Your task to perform on an android device: add a contact in the contacts app Image 0: 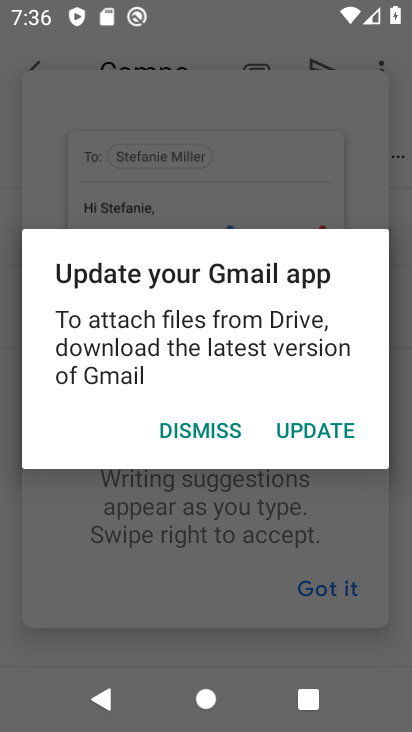
Step 0: press home button
Your task to perform on an android device: add a contact in the contacts app Image 1: 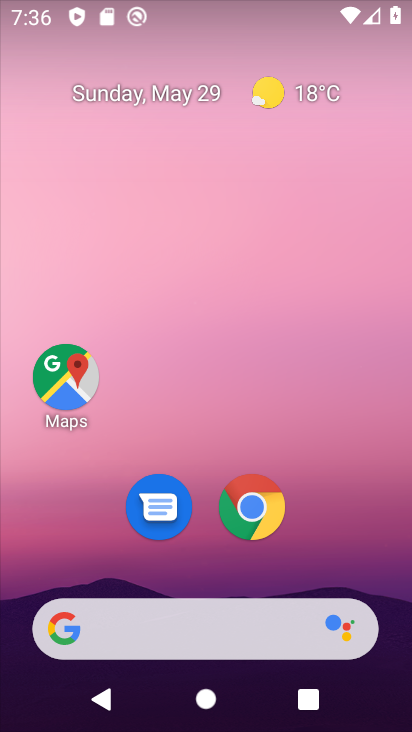
Step 1: drag from (350, 591) to (314, 147)
Your task to perform on an android device: add a contact in the contacts app Image 2: 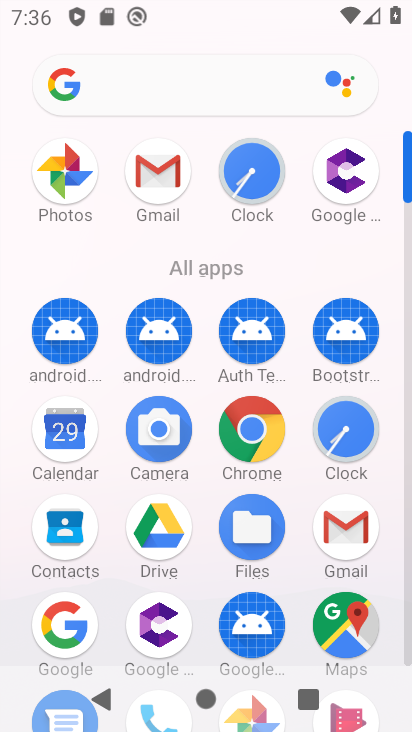
Step 2: click (71, 535)
Your task to perform on an android device: add a contact in the contacts app Image 3: 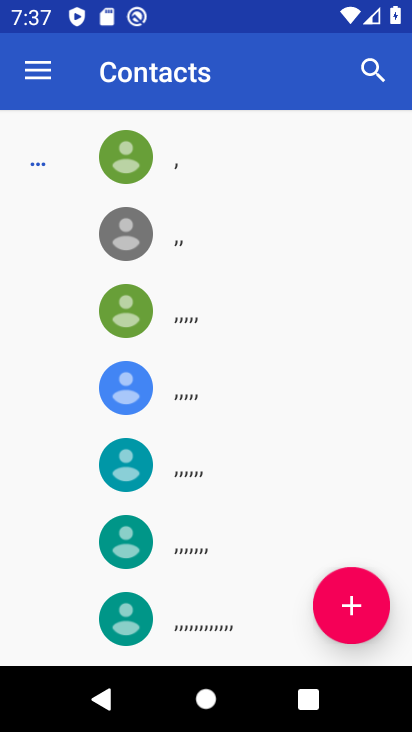
Step 3: click (344, 606)
Your task to perform on an android device: add a contact in the contacts app Image 4: 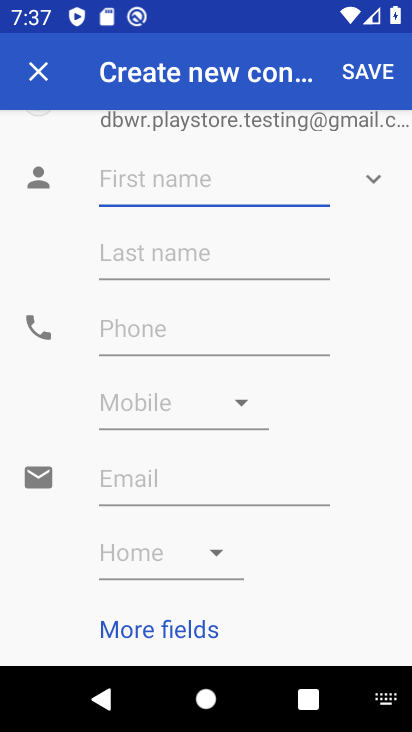
Step 4: type "gfd"
Your task to perform on an android device: add a contact in the contacts app Image 5: 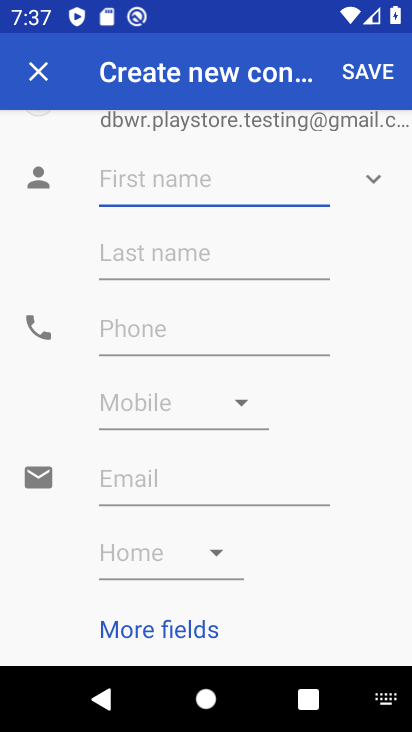
Step 5: click (133, 416)
Your task to perform on an android device: add a contact in the contacts app Image 6: 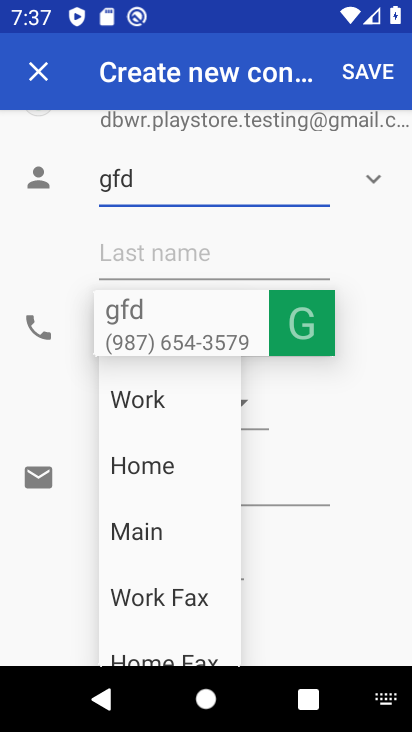
Step 6: drag from (162, 312) to (189, 235)
Your task to perform on an android device: add a contact in the contacts app Image 7: 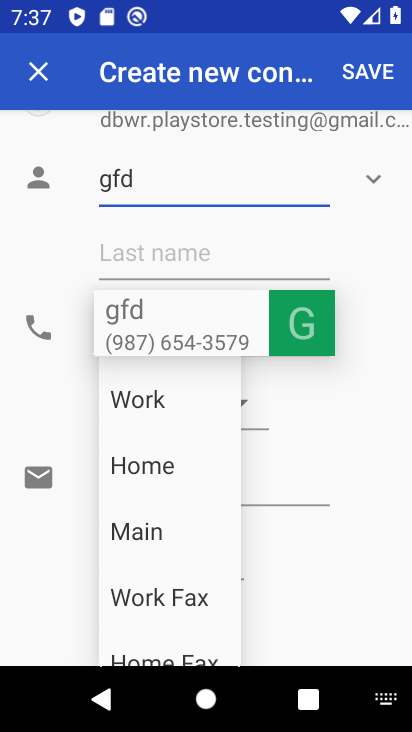
Step 7: click (165, 177)
Your task to perform on an android device: add a contact in the contacts app Image 8: 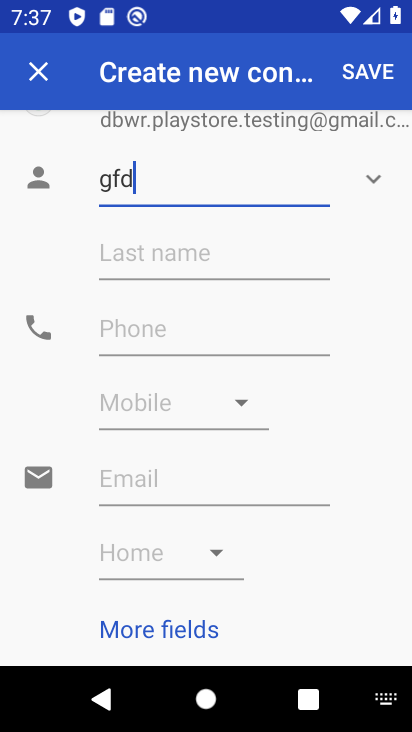
Step 8: type "dddd"
Your task to perform on an android device: add a contact in the contacts app Image 9: 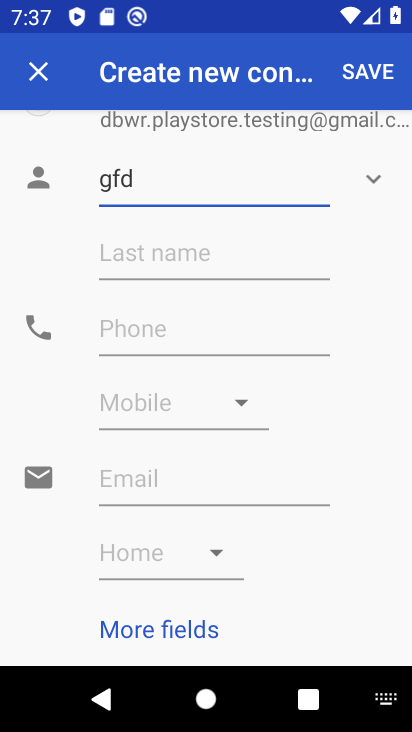
Step 9: click (205, 189)
Your task to perform on an android device: add a contact in the contacts app Image 10: 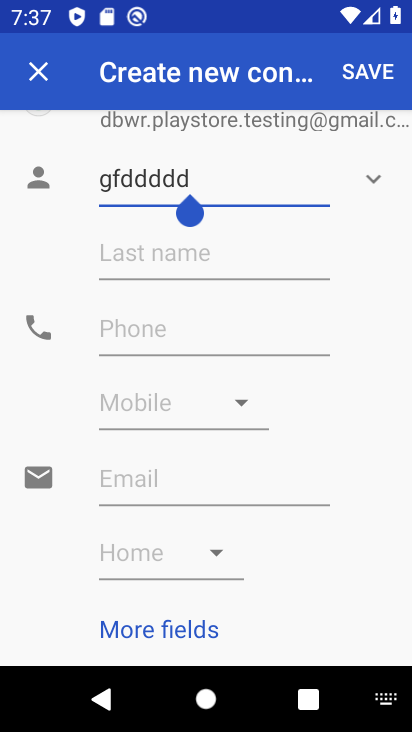
Step 10: click (194, 179)
Your task to perform on an android device: add a contact in the contacts app Image 11: 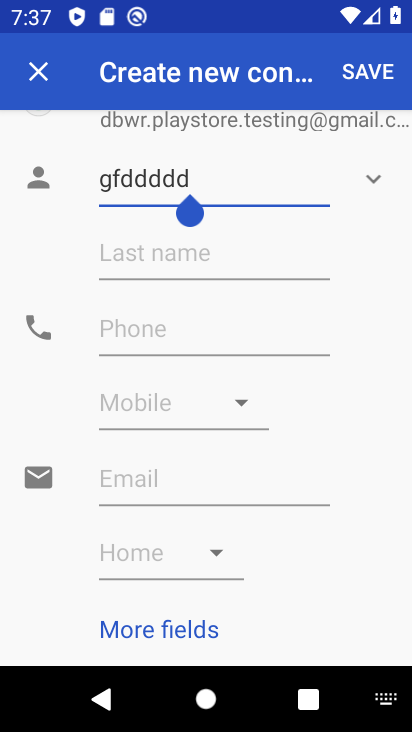
Step 11: click (131, 386)
Your task to perform on an android device: add a contact in the contacts app Image 12: 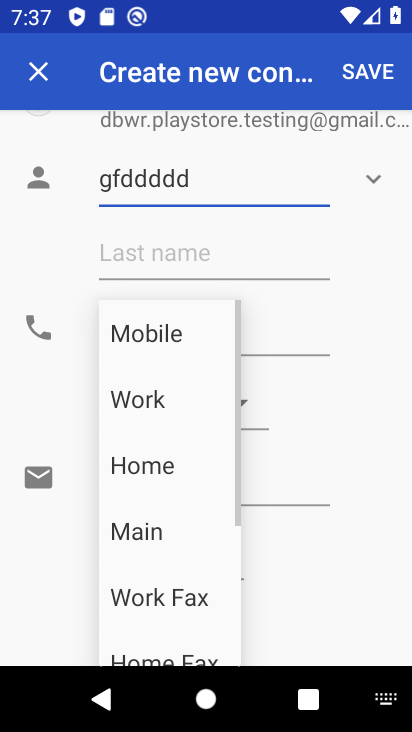
Step 12: click (164, 343)
Your task to perform on an android device: add a contact in the contacts app Image 13: 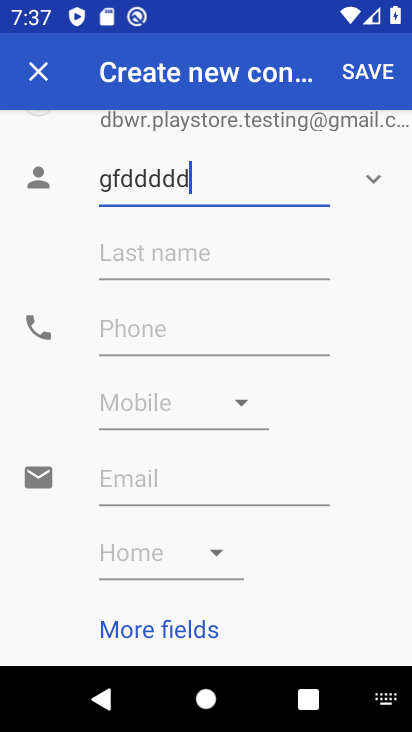
Step 13: click (175, 325)
Your task to perform on an android device: add a contact in the contacts app Image 14: 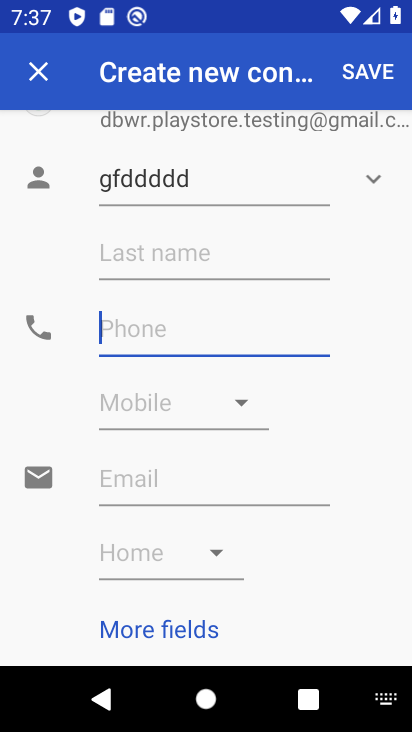
Step 14: type "23344111"
Your task to perform on an android device: add a contact in the contacts app Image 15: 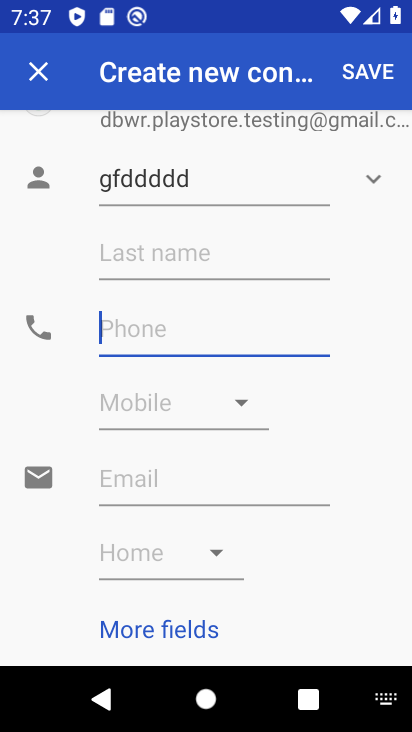
Step 15: click (184, 326)
Your task to perform on an android device: add a contact in the contacts app Image 16: 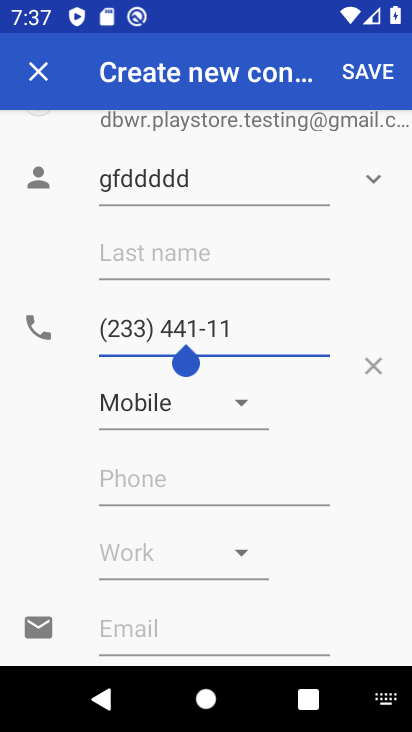
Step 16: click (364, 81)
Your task to perform on an android device: add a contact in the contacts app Image 17: 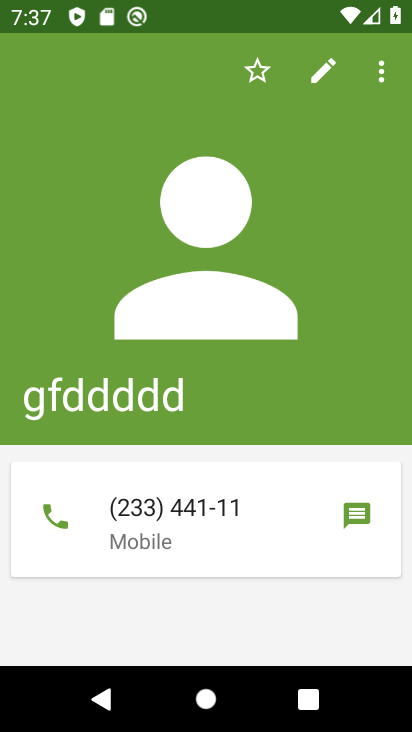
Step 17: task complete